Your task to perform on an android device: Search for flights from Mexico city to Zurich Image 0: 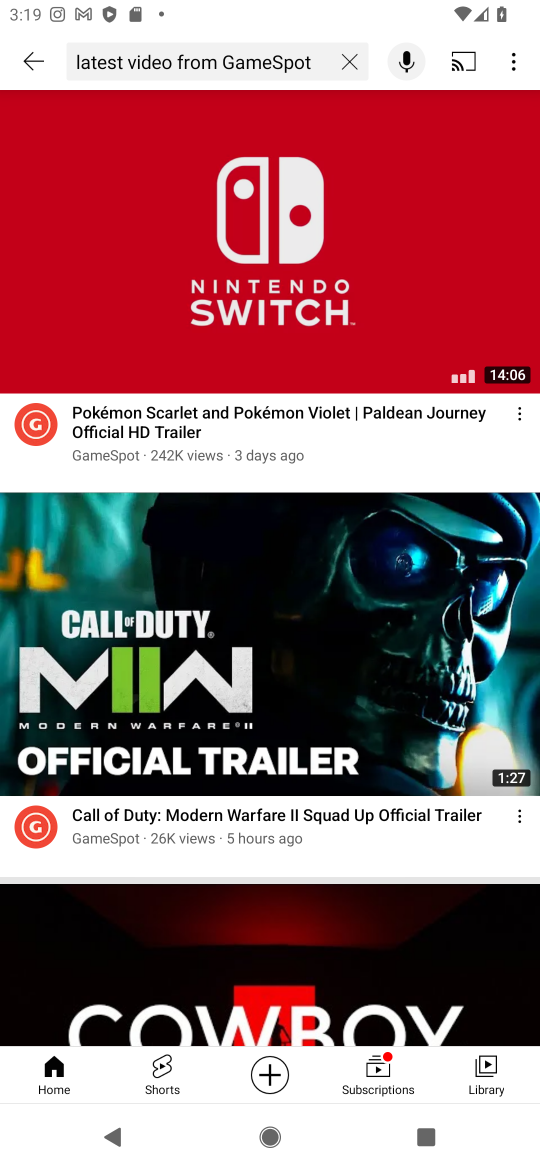
Step 0: press home button
Your task to perform on an android device: Search for flights from Mexico city to Zurich Image 1: 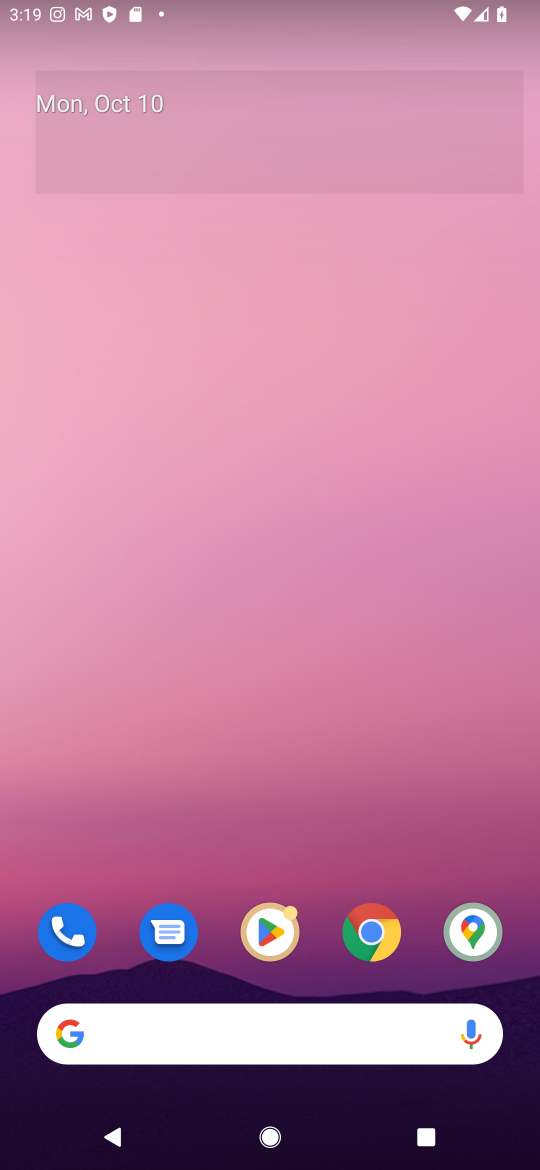
Step 1: click (276, 1041)
Your task to perform on an android device: Search for flights from Mexico city to Zurich Image 2: 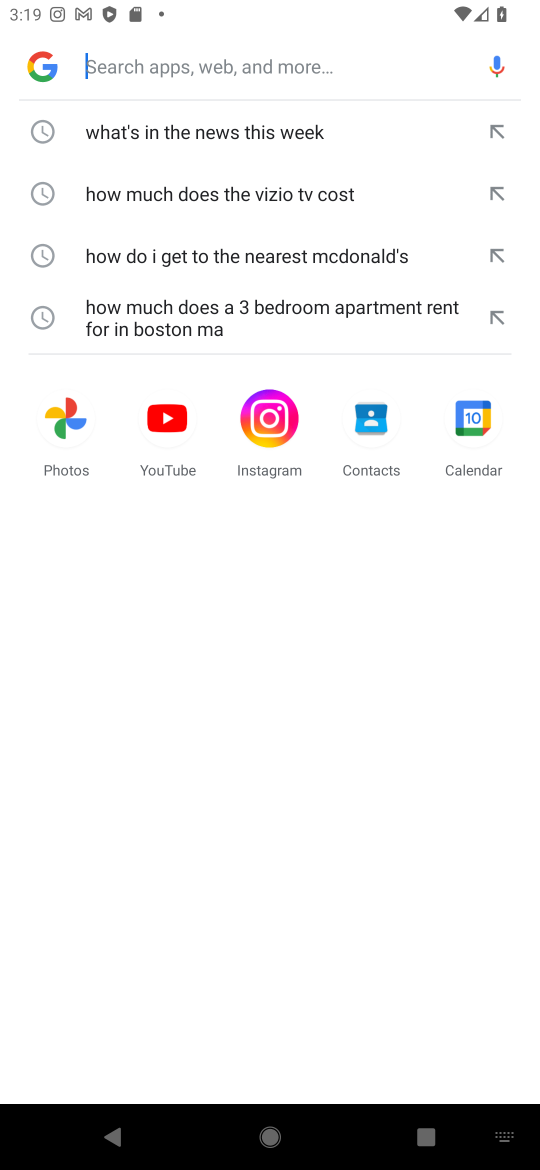
Step 2: type "flights from Mexico city to Zurich"
Your task to perform on an android device: Search for flights from Mexico city to Zurich Image 3: 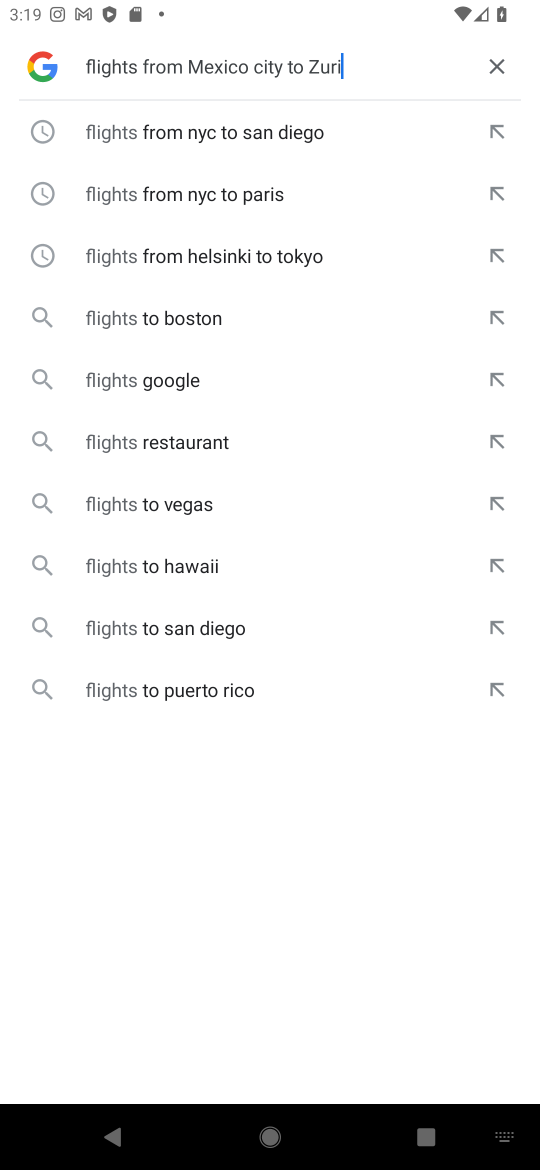
Step 3: press enter
Your task to perform on an android device: Search for flights from Mexico city to Zurich Image 4: 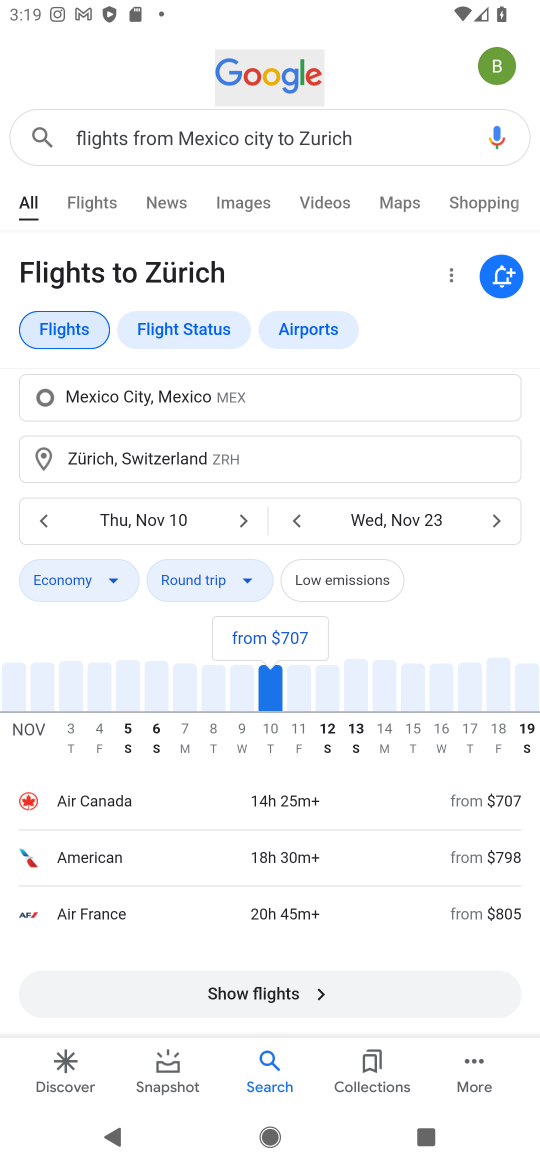
Step 4: click (255, 997)
Your task to perform on an android device: Search for flights from Mexico city to Zurich Image 5: 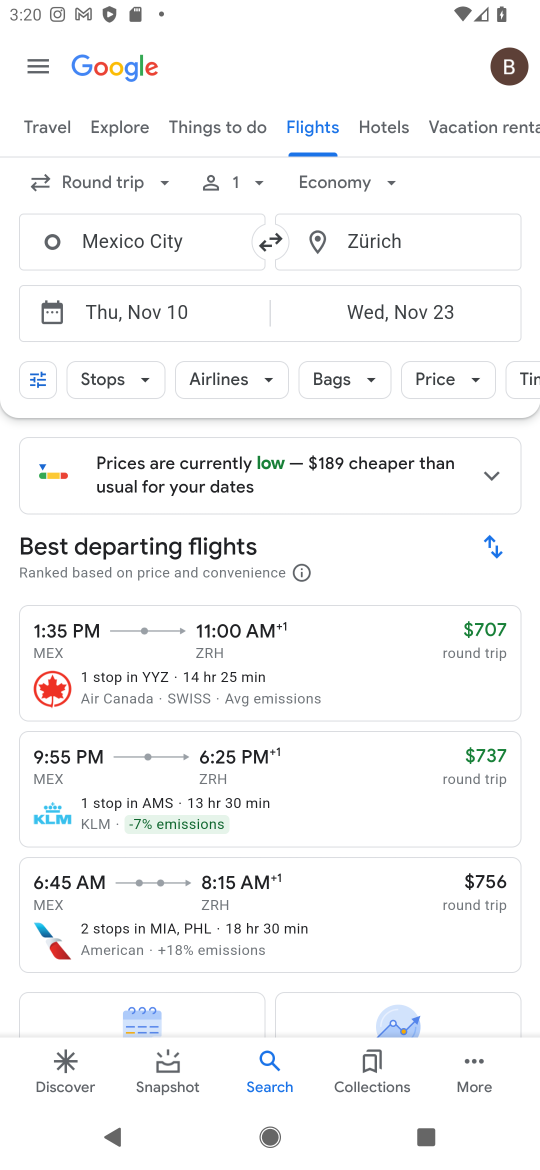
Step 5: task complete